Your task to perform on an android device: What's on my calendar tomorrow? Image 0: 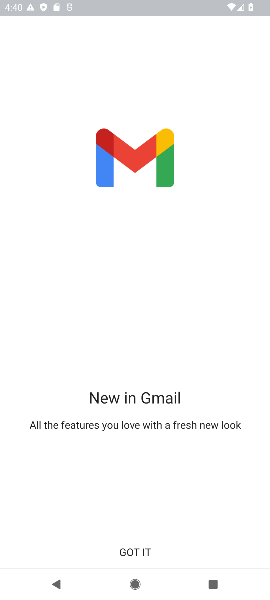
Step 0: click (151, 548)
Your task to perform on an android device: What's on my calendar tomorrow? Image 1: 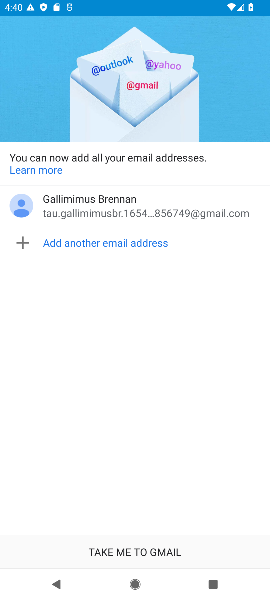
Step 1: press home button
Your task to perform on an android device: What's on my calendar tomorrow? Image 2: 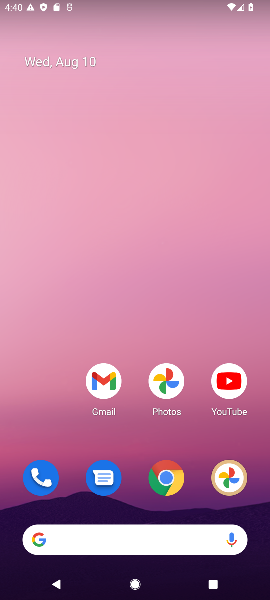
Step 2: drag from (77, 444) to (98, 129)
Your task to perform on an android device: What's on my calendar tomorrow? Image 3: 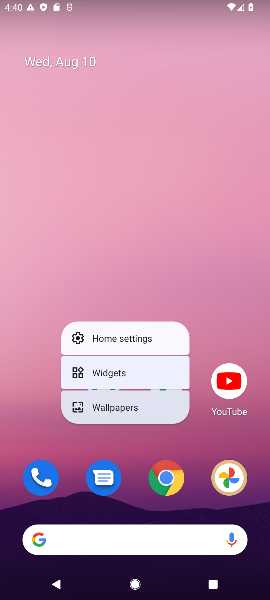
Step 3: drag from (73, 496) to (100, 93)
Your task to perform on an android device: What's on my calendar tomorrow? Image 4: 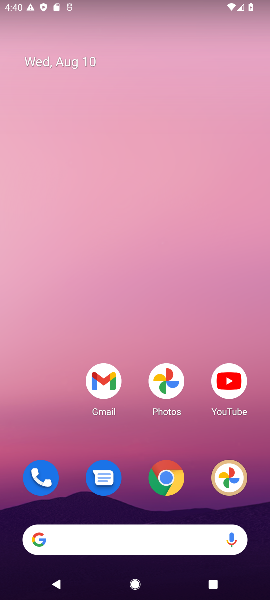
Step 4: drag from (73, 499) to (83, 23)
Your task to perform on an android device: What's on my calendar tomorrow? Image 5: 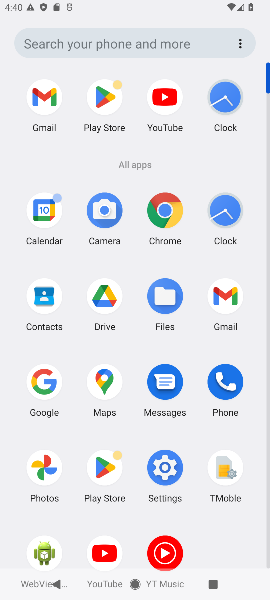
Step 5: click (46, 210)
Your task to perform on an android device: What's on my calendar tomorrow? Image 6: 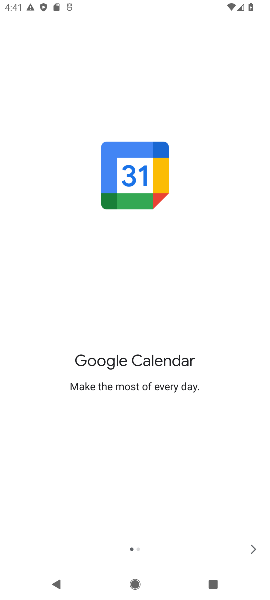
Step 6: click (250, 545)
Your task to perform on an android device: What's on my calendar tomorrow? Image 7: 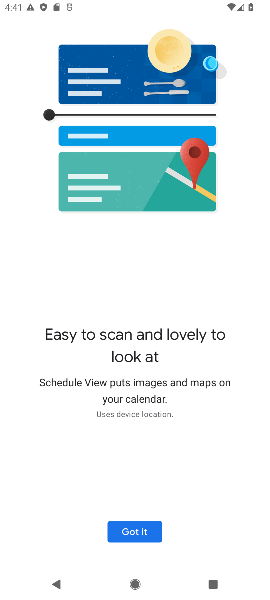
Step 7: click (140, 534)
Your task to perform on an android device: What's on my calendar tomorrow? Image 8: 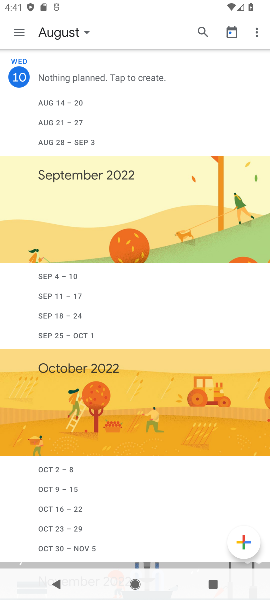
Step 8: click (16, 34)
Your task to perform on an android device: What's on my calendar tomorrow? Image 9: 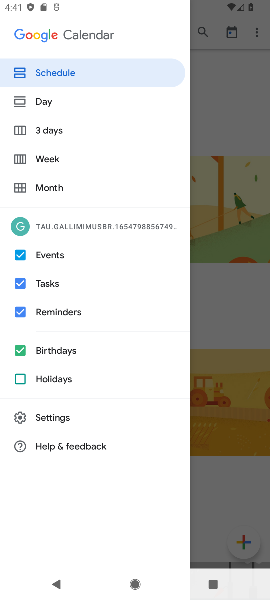
Step 9: click (46, 101)
Your task to perform on an android device: What's on my calendar tomorrow? Image 10: 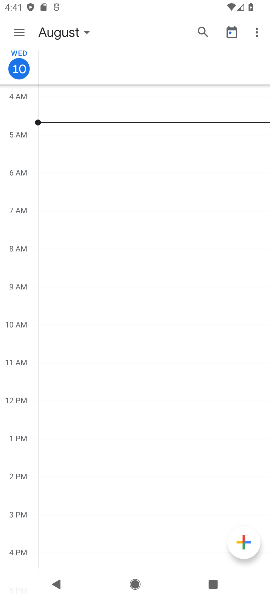
Step 10: task complete